Your task to perform on an android device: Show me popular videos on Youtube Image 0: 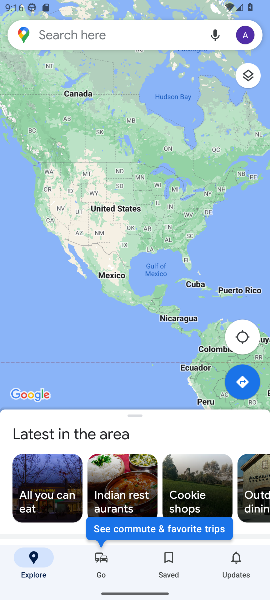
Step 0: press home button
Your task to perform on an android device: Show me popular videos on Youtube Image 1: 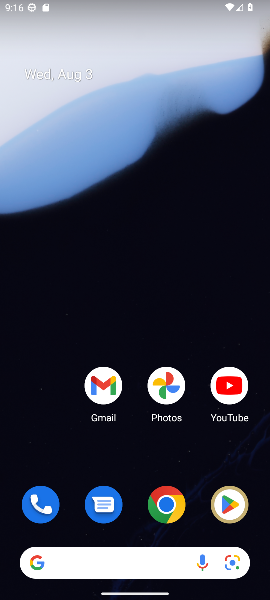
Step 1: drag from (140, 455) to (151, 31)
Your task to perform on an android device: Show me popular videos on Youtube Image 2: 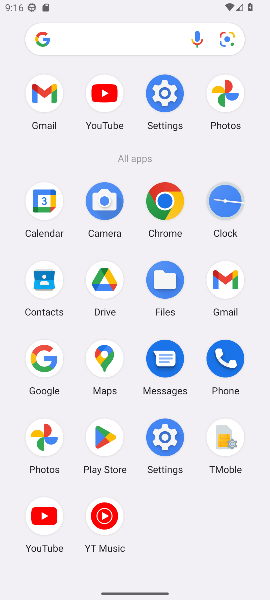
Step 2: click (43, 512)
Your task to perform on an android device: Show me popular videos on Youtube Image 3: 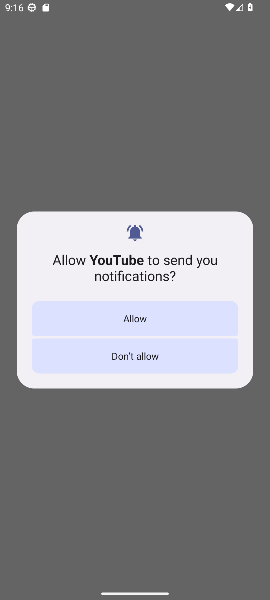
Step 3: click (127, 312)
Your task to perform on an android device: Show me popular videos on Youtube Image 4: 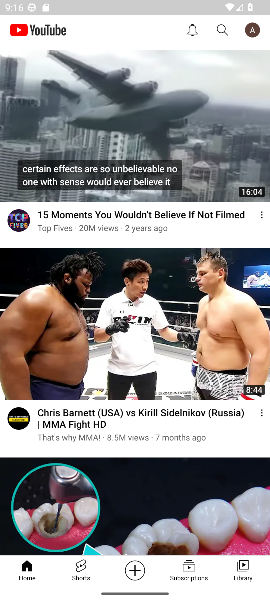
Step 4: drag from (87, 470) to (112, 121)
Your task to perform on an android device: Show me popular videos on Youtube Image 5: 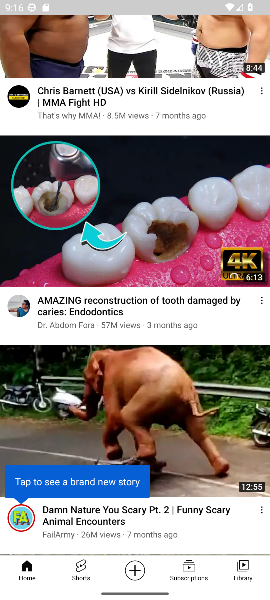
Step 5: drag from (119, 69) to (116, 511)
Your task to perform on an android device: Show me popular videos on Youtube Image 6: 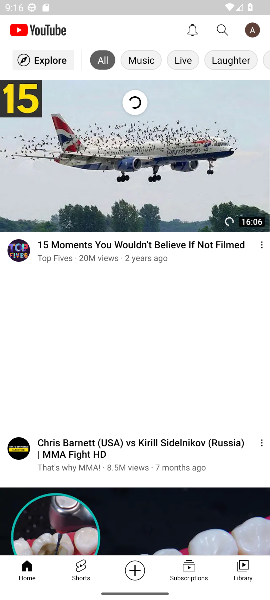
Step 6: click (39, 53)
Your task to perform on an android device: Show me popular videos on Youtube Image 7: 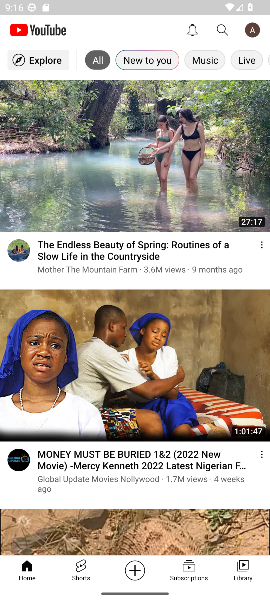
Step 7: click (37, 57)
Your task to perform on an android device: Show me popular videos on Youtube Image 8: 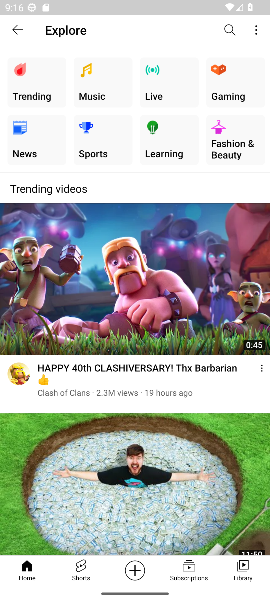
Step 8: click (26, 77)
Your task to perform on an android device: Show me popular videos on Youtube Image 9: 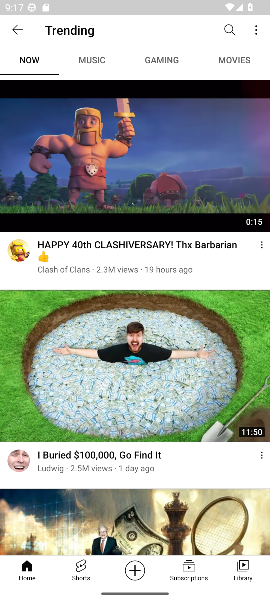
Step 9: task complete